Your task to perform on an android device: Open the calendar app, open the side menu, and click the "Day" option Image 0: 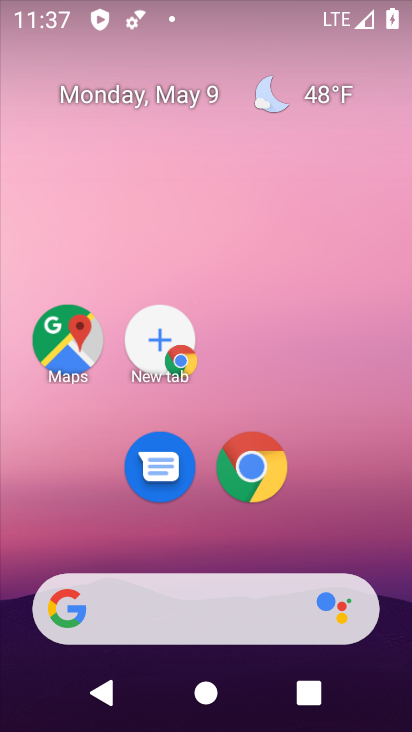
Step 0: drag from (363, 579) to (215, 53)
Your task to perform on an android device: Open the calendar app, open the side menu, and click the "Day" option Image 1: 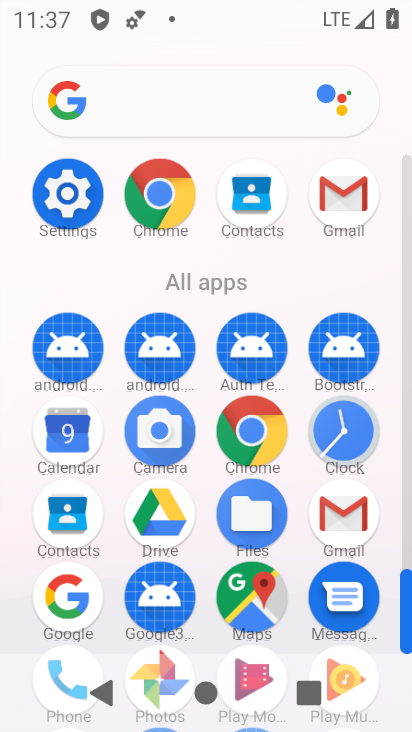
Step 1: click (70, 429)
Your task to perform on an android device: Open the calendar app, open the side menu, and click the "Day" option Image 2: 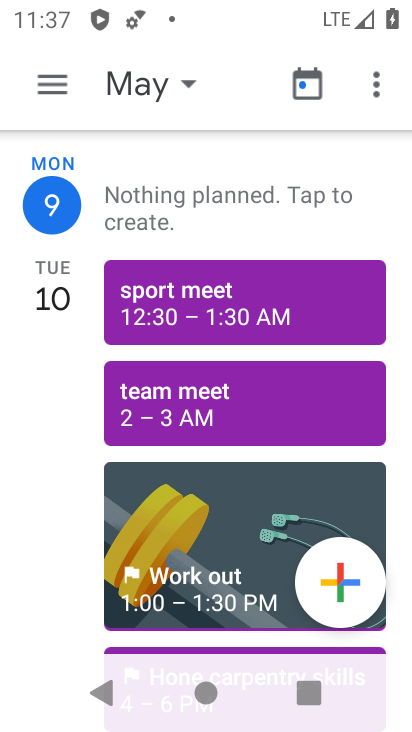
Step 2: click (45, 88)
Your task to perform on an android device: Open the calendar app, open the side menu, and click the "Day" option Image 3: 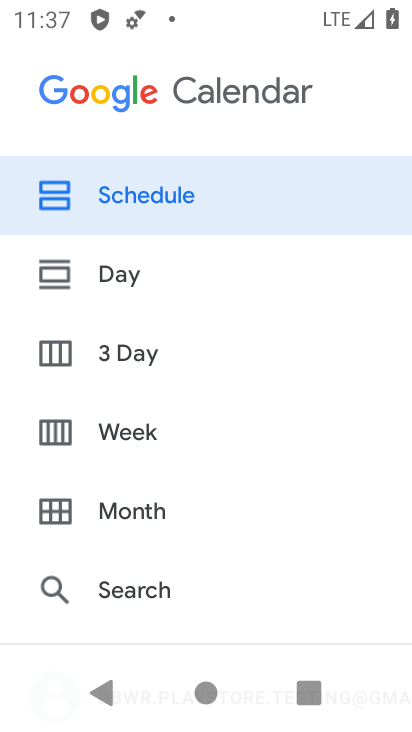
Step 3: click (124, 267)
Your task to perform on an android device: Open the calendar app, open the side menu, and click the "Day" option Image 4: 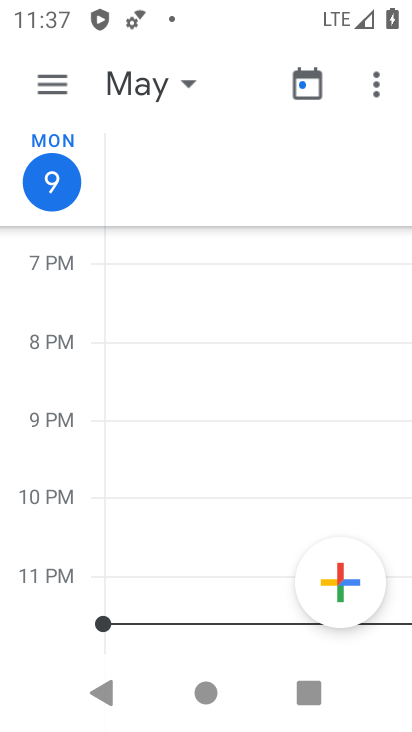
Step 4: task complete